Your task to perform on an android device: Go to Yahoo.com Image 0: 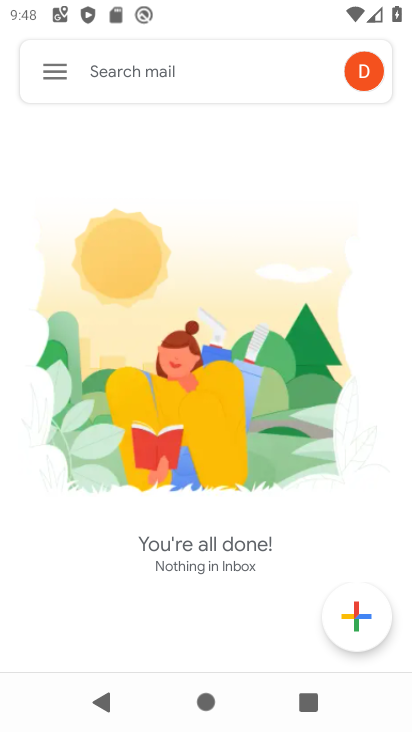
Step 0: press home button
Your task to perform on an android device: Go to Yahoo.com Image 1: 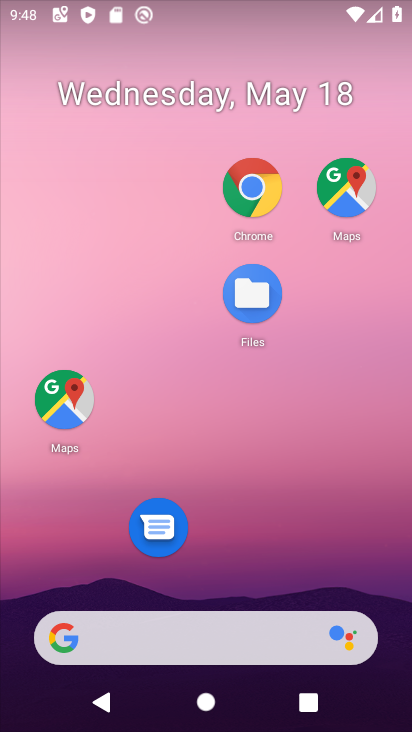
Step 1: click (249, 189)
Your task to perform on an android device: Go to Yahoo.com Image 2: 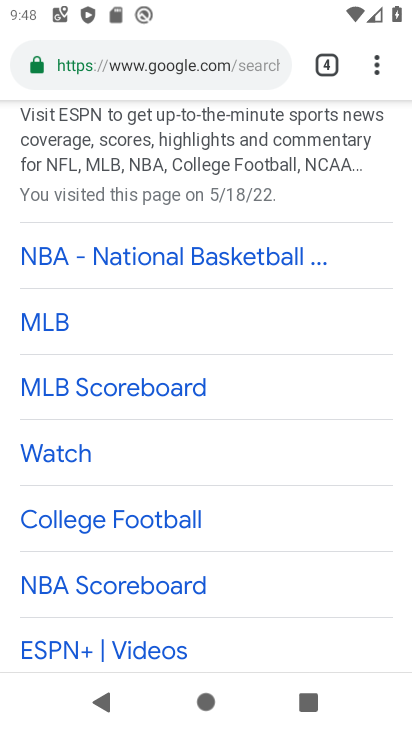
Step 2: click (323, 70)
Your task to perform on an android device: Go to Yahoo.com Image 3: 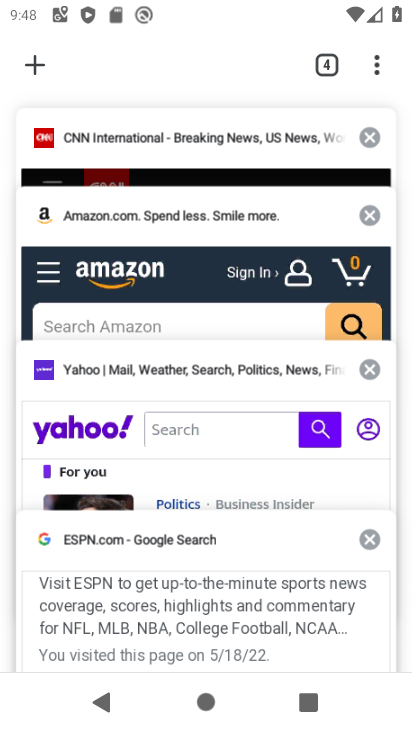
Step 3: click (208, 448)
Your task to perform on an android device: Go to Yahoo.com Image 4: 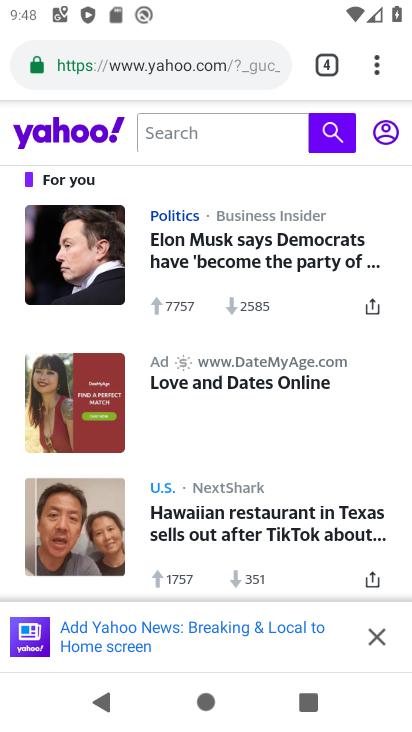
Step 4: task complete